Your task to perform on an android device: toggle priority inbox in the gmail app Image 0: 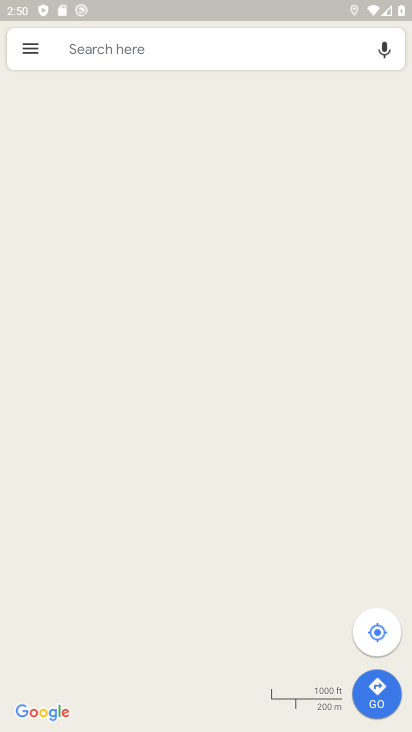
Step 0: press home button
Your task to perform on an android device: toggle priority inbox in the gmail app Image 1: 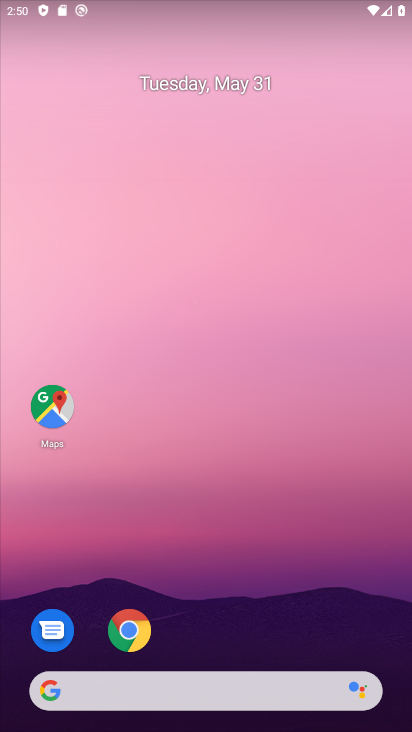
Step 1: drag from (202, 669) to (384, 95)
Your task to perform on an android device: toggle priority inbox in the gmail app Image 2: 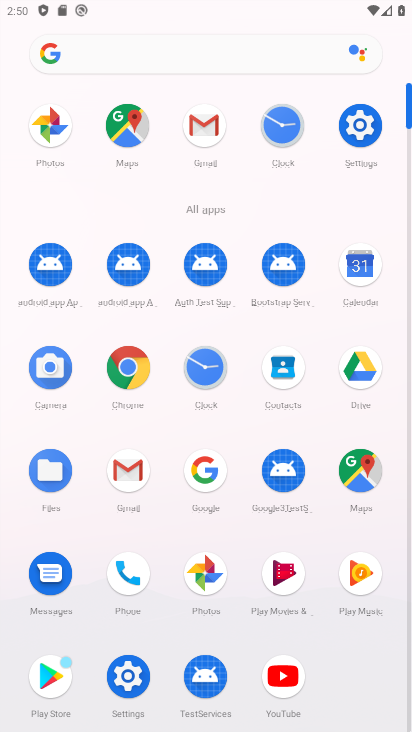
Step 2: click (193, 137)
Your task to perform on an android device: toggle priority inbox in the gmail app Image 3: 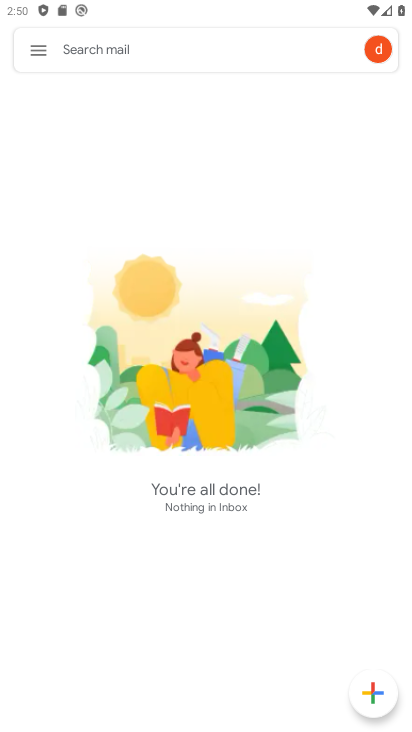
Step 3: click (39, 49)
Your task to perform on an android device: toggle priority inbox in the gmail app Image 4: 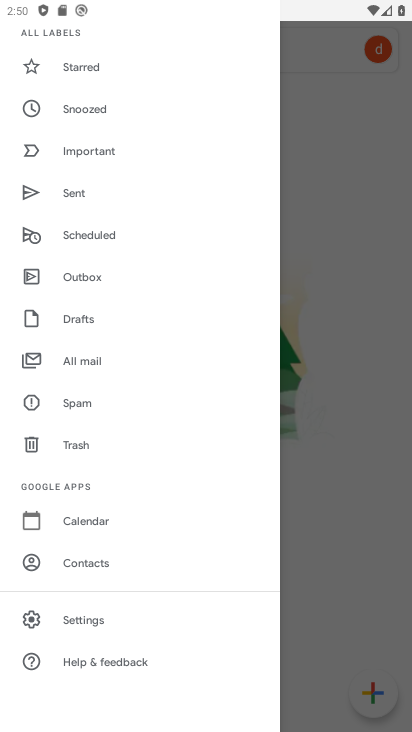
Step 4: click (80, 619)
Your task to perform on an android device: toggle priority inbox in the gmail app Image 5: 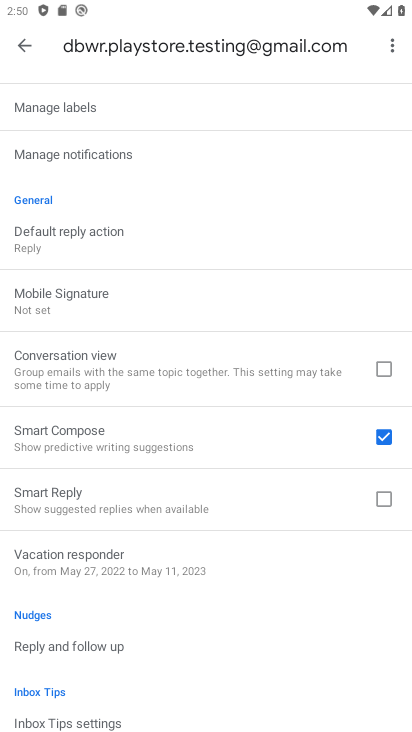
Step 5: drag from (144, 245) to (109, 727)
Your task to perform on an android device: toggle priority inbox in the gmail app Image 6: 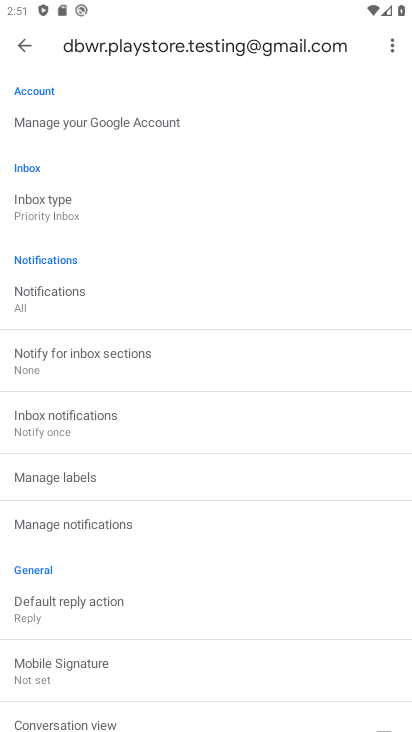
Step 6: click (115, 212)
Your task to perform on an android device: toggle priority inbox in the gmail app Image 7: 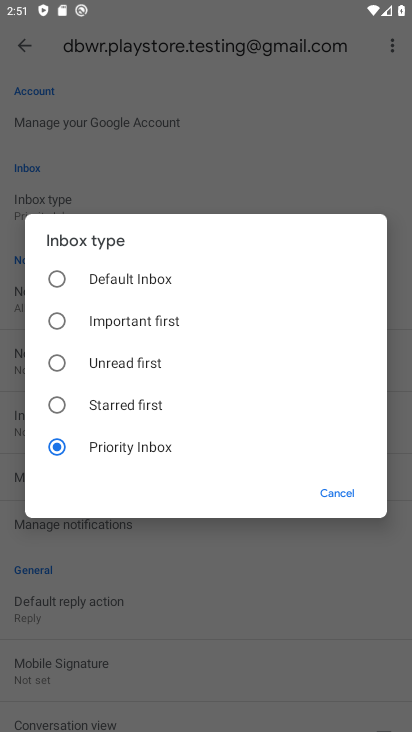
Step 7: click (104, 405)
Your task to perform on an android device: toggle priority inbox in the gmail app Image 8: 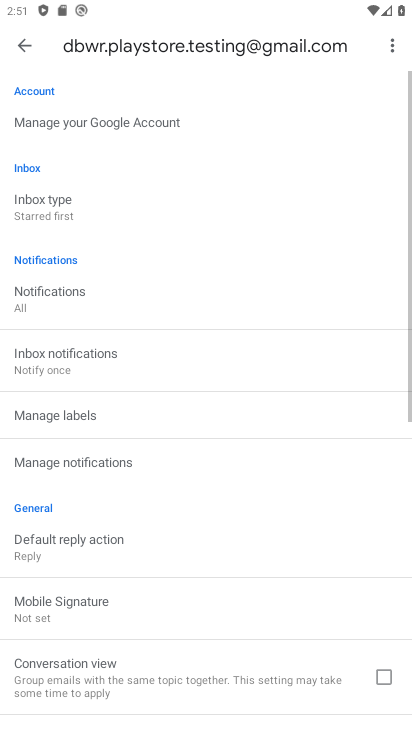
Step 8: task complete